Your task to perform on an android device: Open Wikipedia Image 0: 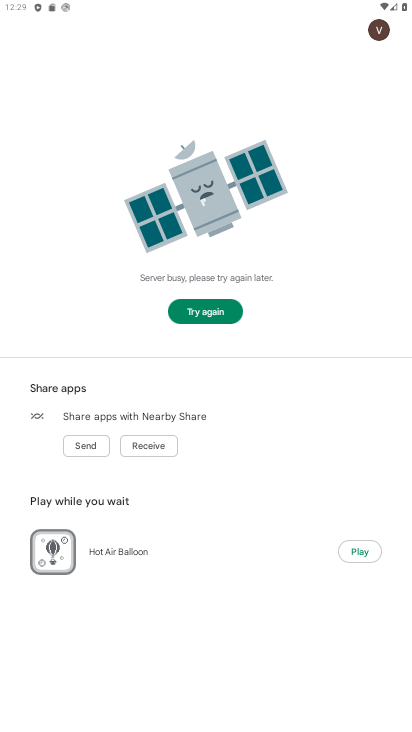
Step 0: press home button
Your task to perform on an android device: Open Wikipedia Image 1: 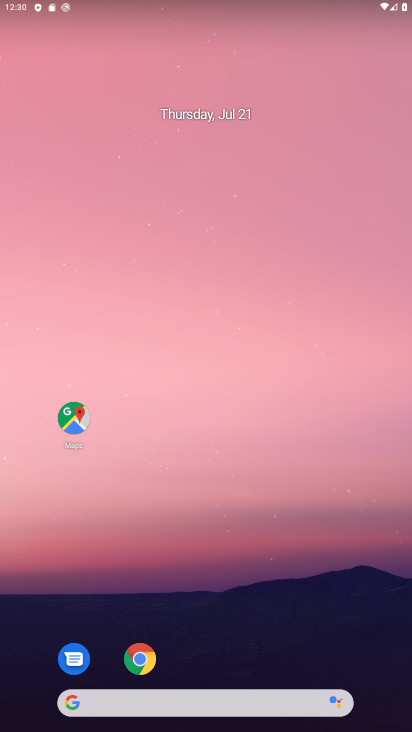
Step 1: click (139, 660)
Your task to perform on an android device: Open Wikipedia Image 2: 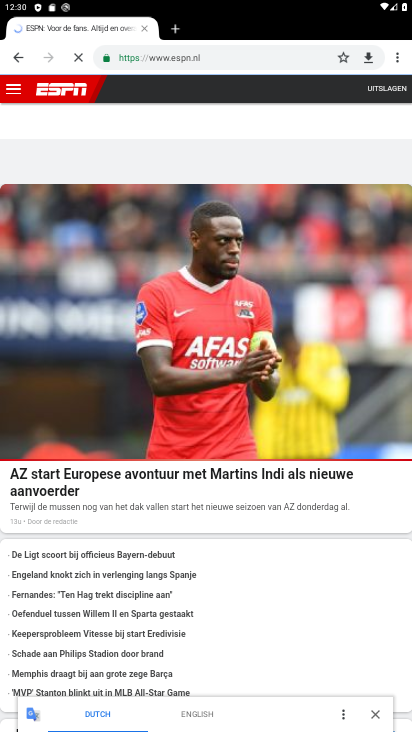
Step 2: click (255, 60)
Your task to perform on an android device: Open Wikipedia Image 3: 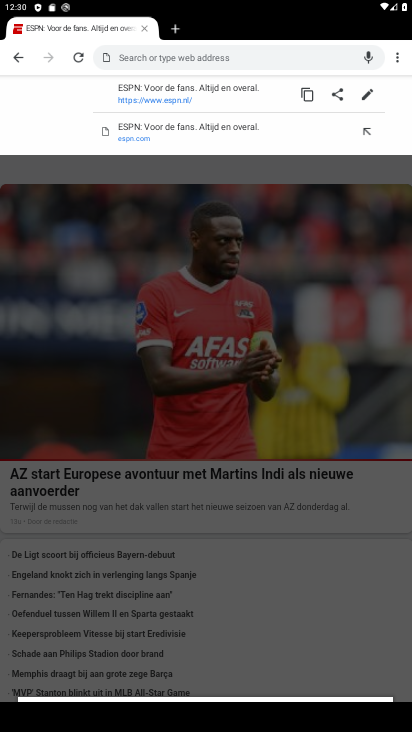
Step 3: type "Wikipedia"
Your task to perform on an android device: Open Wikipedia Image 4: 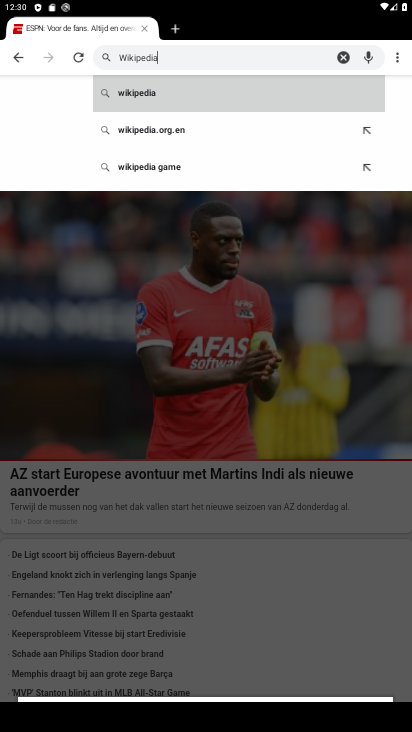
Step 4: click (145, 97)
Your task to perform on an android device: Open Wikipedia Image 5: 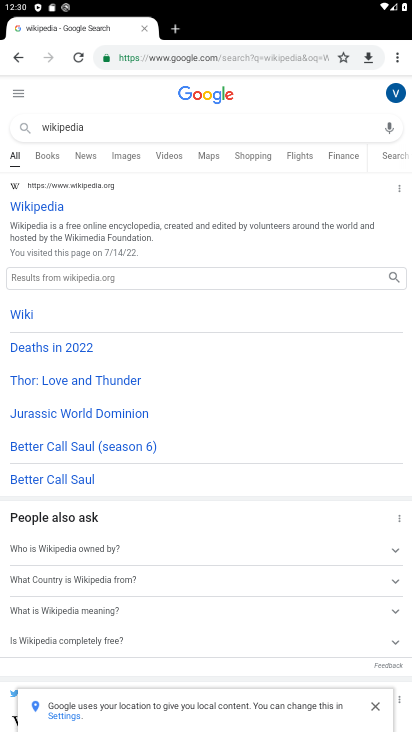
Step 5: click (35, 209)
Your task to perform on an android device: Open Wikipedia Image 6: 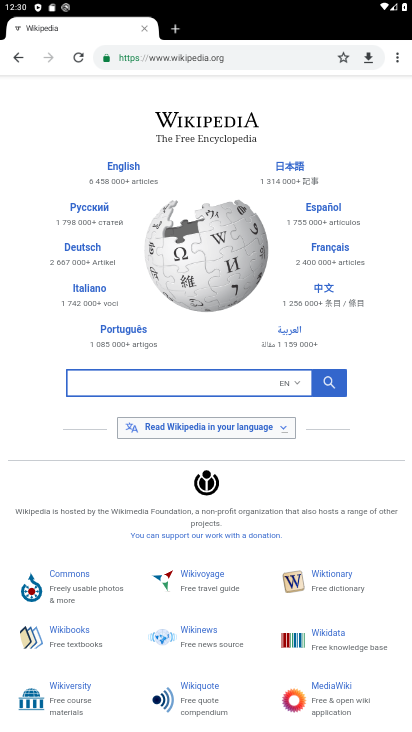
Step 6: task complete